Your task to perform on an android device: uninstall "Venmo" Image 0: 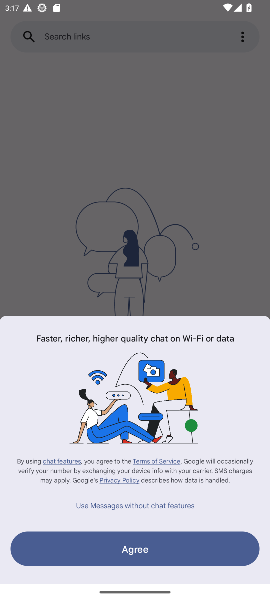
Step 0: press home button
Your task to perform on an android device: uninstall "Venmo" Image 1: 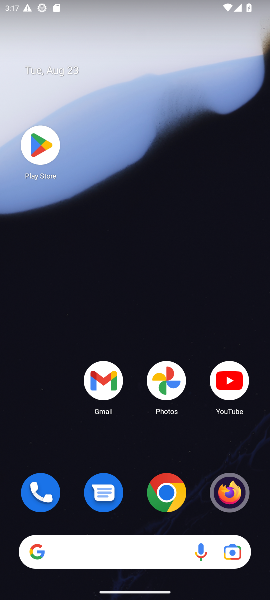
Step 1: click (29, 171)
Your task to perform on an android device: uninstall "Venmo" Image 2: 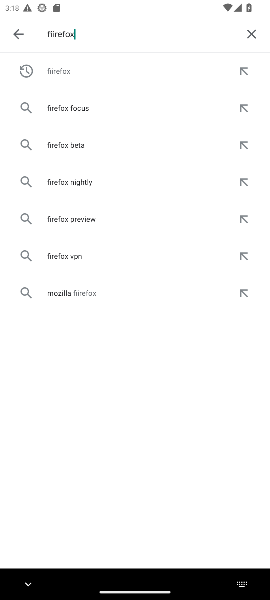
Step 2: click (247, 39)
Your task to perform on an android device: uninstall "Venmo" Image 3: 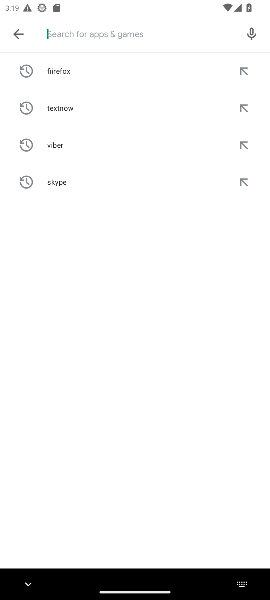
Step 3: type "venmo"
Your task to perform on an android device: uninstall "Venmo" Image 4: 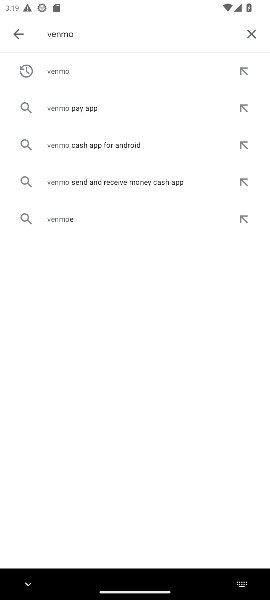
Step 4: click (83, 60)
Your task to perform on an android device: uninstall "Venmo" Image 5: 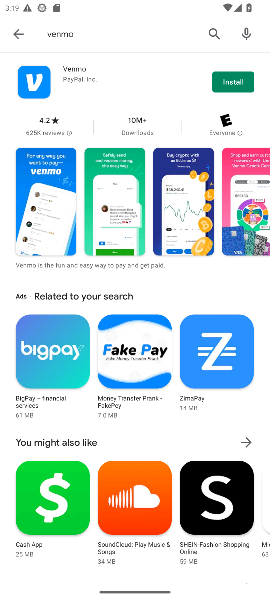
Step 5: click (227, 80)
Your task to perform on an android device: uninstall "Venmo" Image 6: 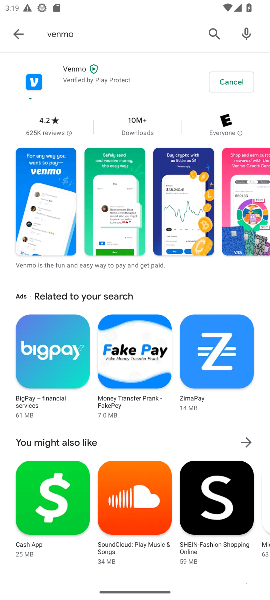
Step 6: task complete